Your task to perform on an android device: Turn off the flashlight Image 0: 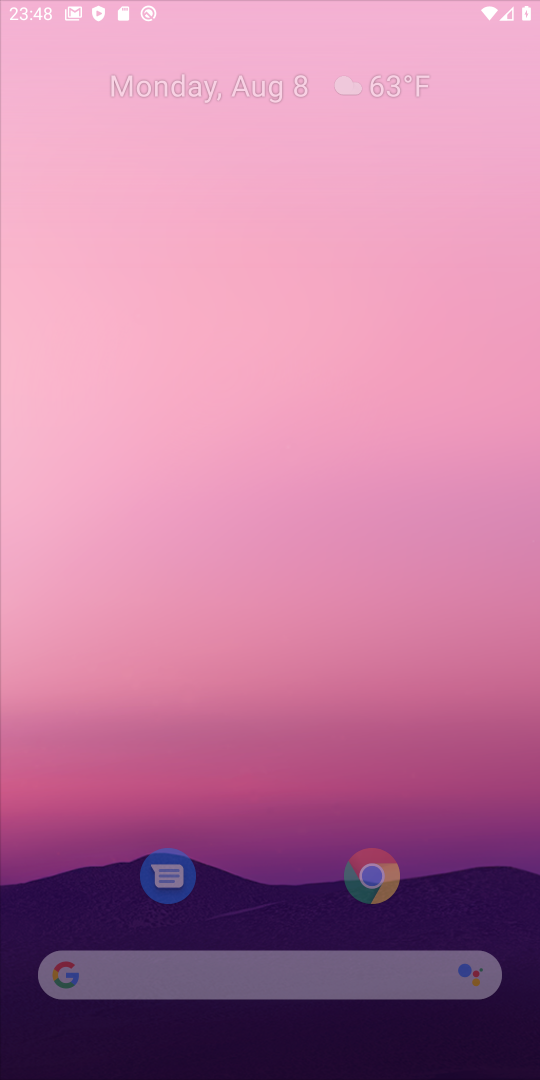
Step 0: press home button
Your task to perform on an android device: Turn off the flashlight Image 1: 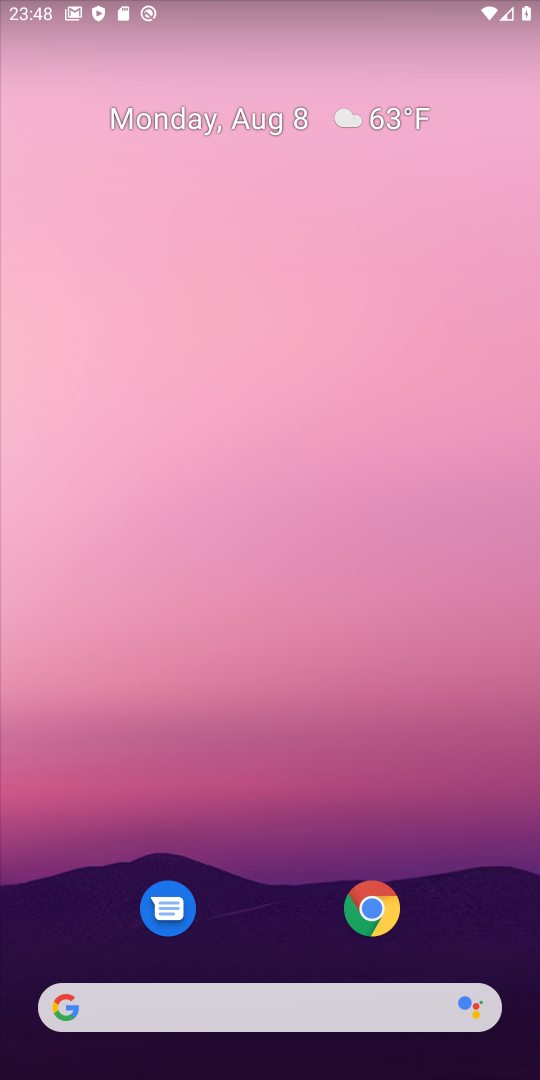
Step 1: drag from (509, 942) to (335, 182)
Your task to perform on an android device: Turn off the flashlight Image 2: 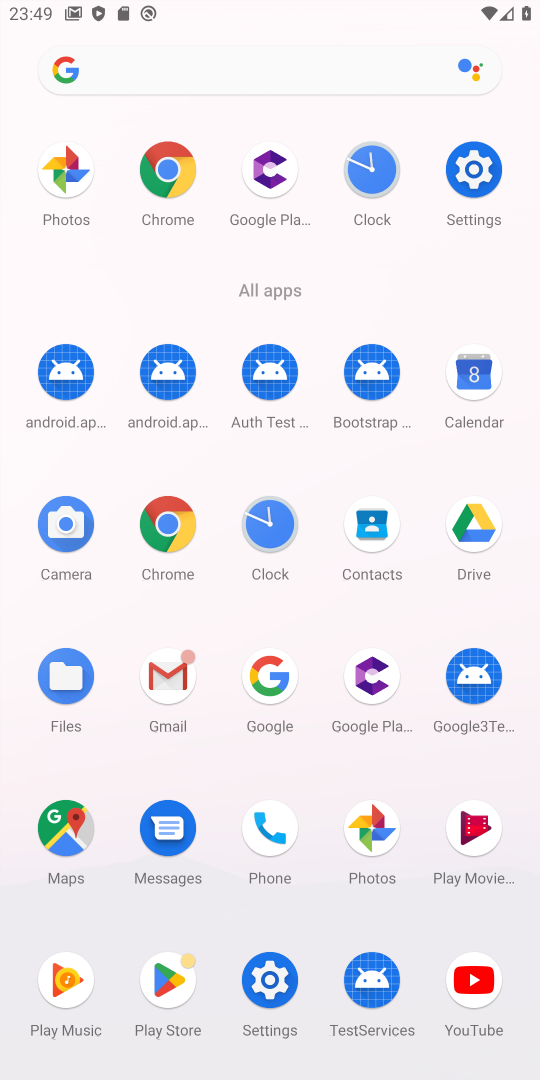
Step 2: click (462, 186)
Your task to perform on an android device: Turn off the flashlight Image 3: 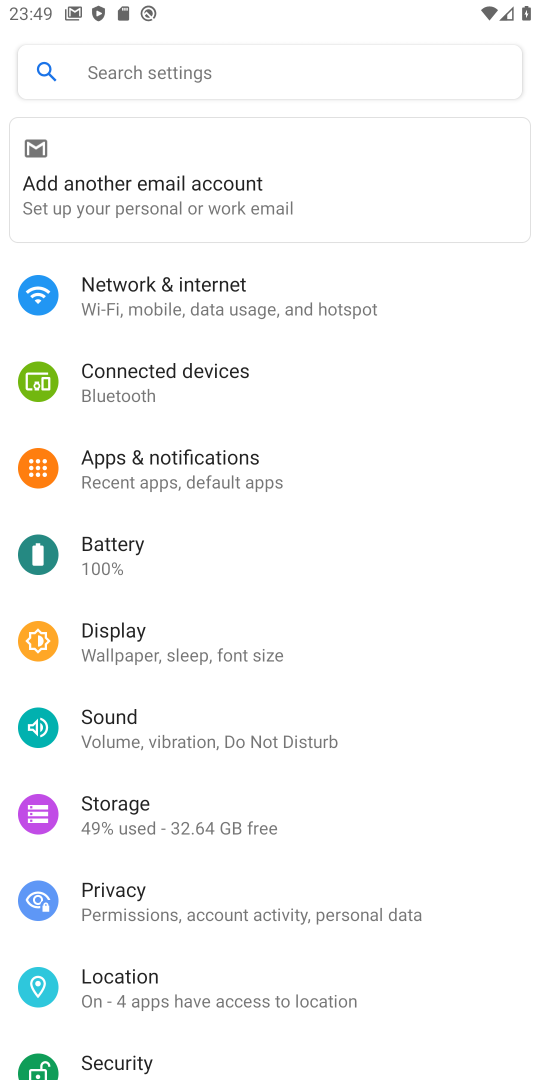
Step 3: drag from (274, 8) to (365, 801)
Your task to perform on an android device: Turn off the flashlight Image 4: 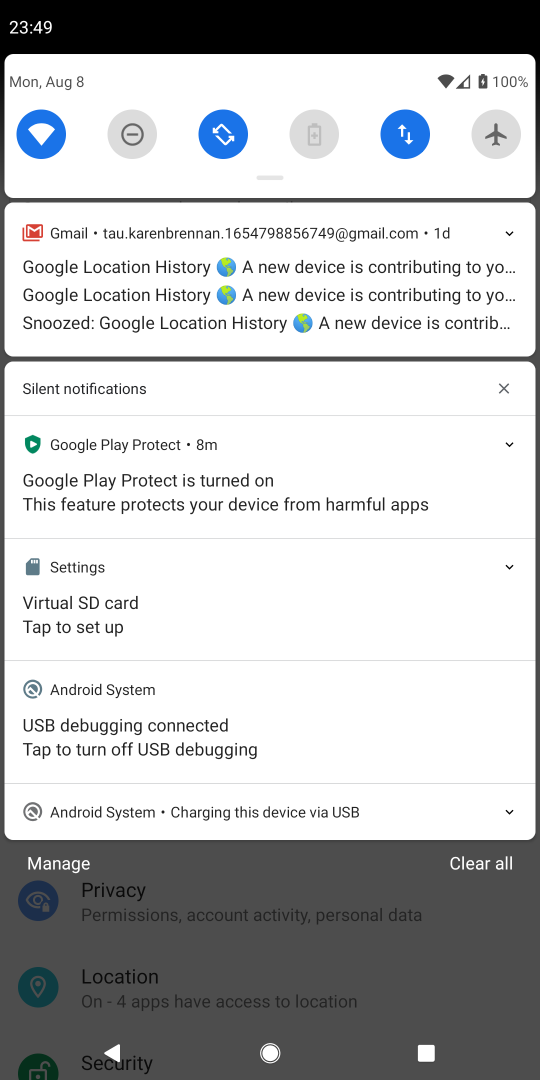
Step 4: drag from (174, 146) to (334, 836)
Your task to perform on an android device: Turn off the flashlight Image 5: 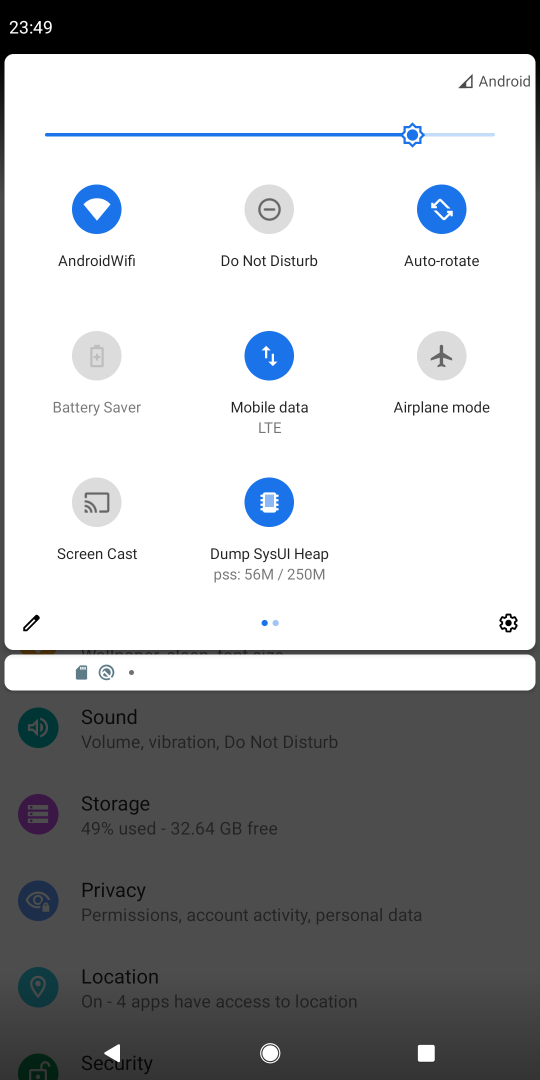
Step 5: click (39, 611)
Your task to perform on an android device: Turn off the flashlight Image 6: 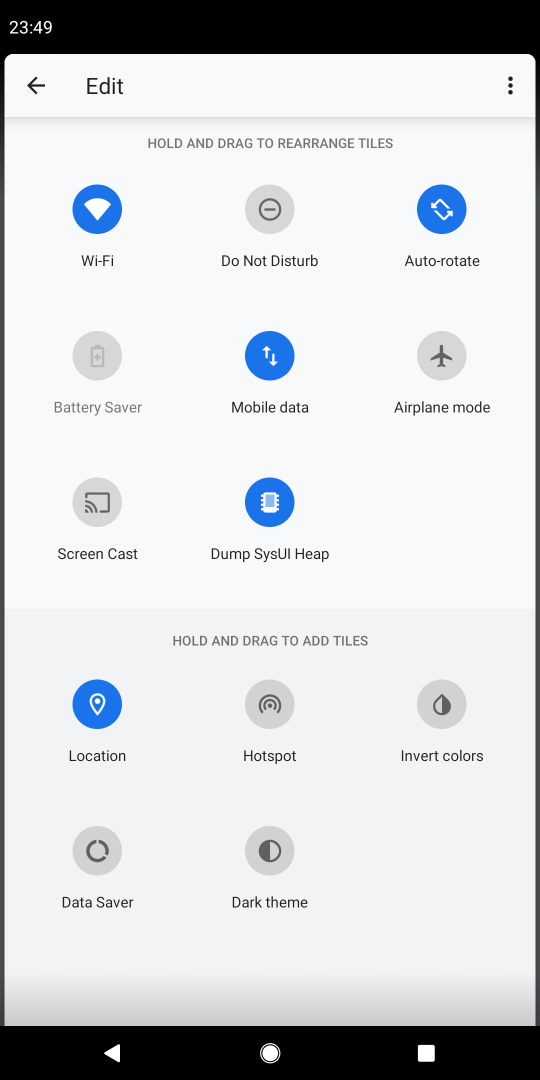
Step 6: task complete